Your task to perform on an android device: Open Wikipedia Image 0: 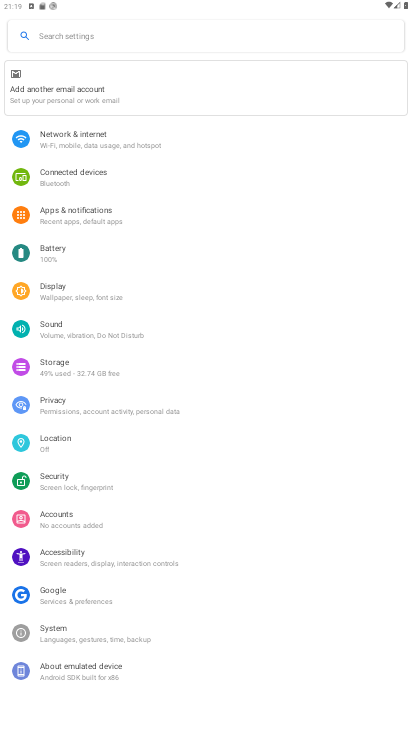
Step 0: press home button
Your task to perform on an android device: Open Wikipedia Image 1: 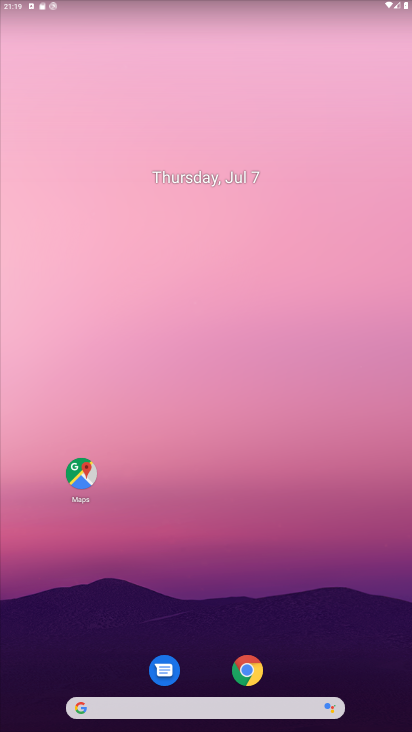
Step 1: drag from (47, 701) to (372, 154)
Your task to perform on an android device: Open Wikipedia Image 2: 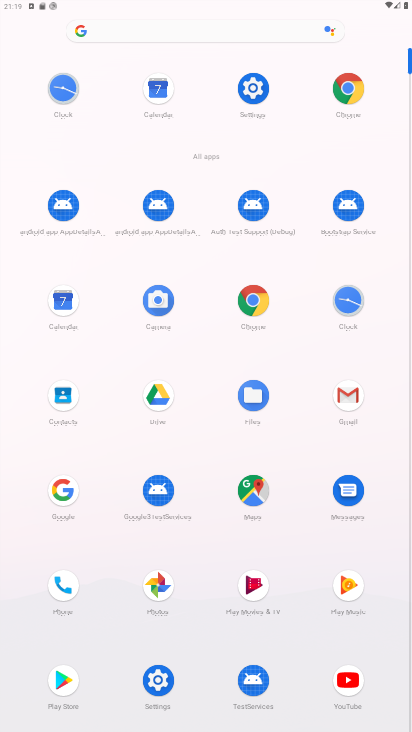
Step 2: click (243, 298)
Your task to perform on an android device: Open Wikipedia Image 3: 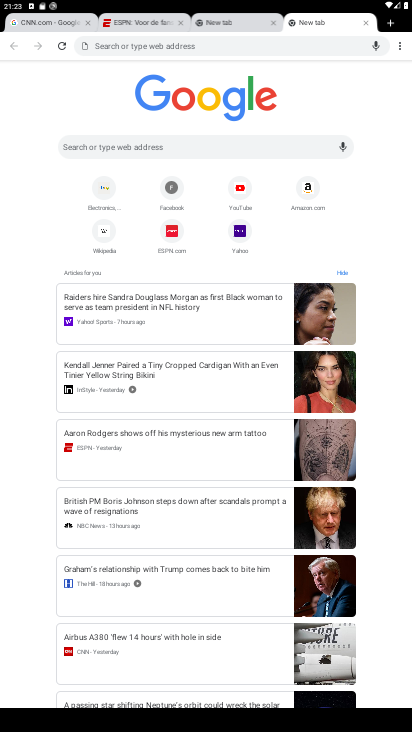
Step 3: press home button
Your task to perform on an android device: Open Wikipedia Image 4: 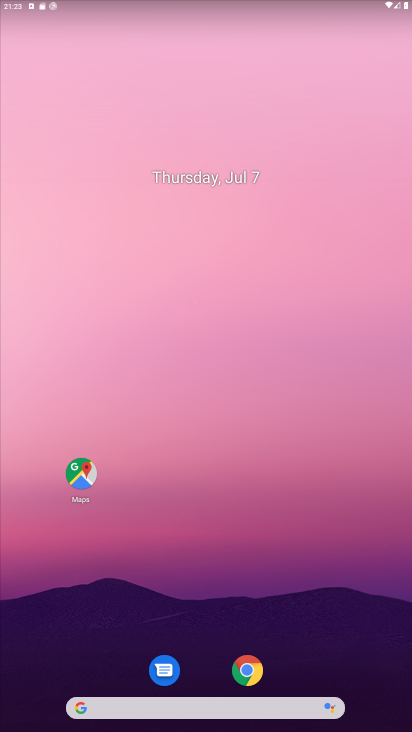
Step 4: click (246, 674)
Your task to perform on an android device: Open Wikipedia Image 5: 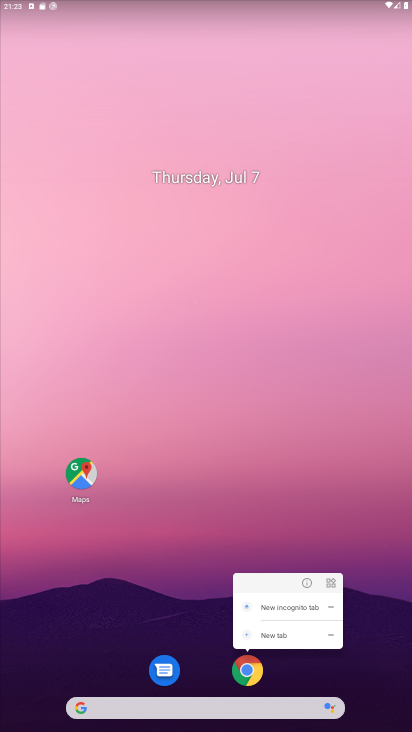
Step 5: click (246, 673)
Your task to perform on an android device: Open Wikipedia Image 6: 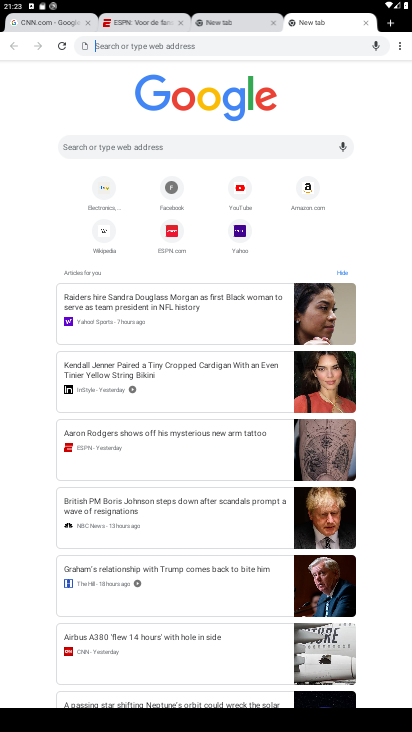
Step 6: click (108, 232)
Your task to perform on an android device: Open Wikipedia Image 7: 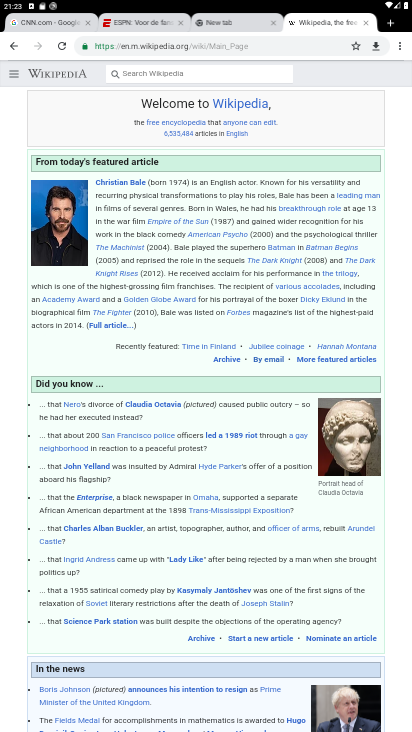
Step 7: task complete